Your task to perform on an android device: turn on sleep mode Image 0: 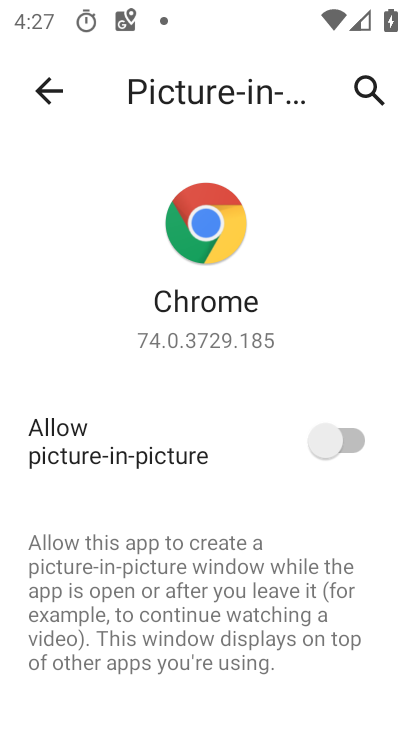
Step 0: press home button
Your task to perform on an android device: turn on sleep mode Image 1: 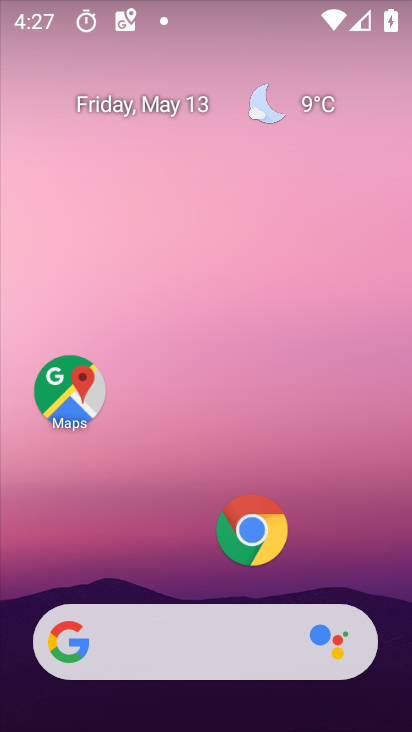
Step 1: drag from (194, 576) to (266, 32)
Your task to perform on an android device: turn on sleep mode Image 2: 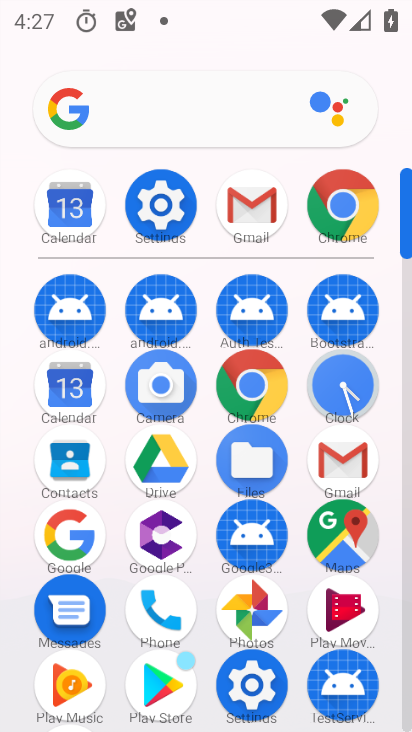
Step 2: click (259, 662)
Your task to perform on an android device: turn on sleep mode Image 3: 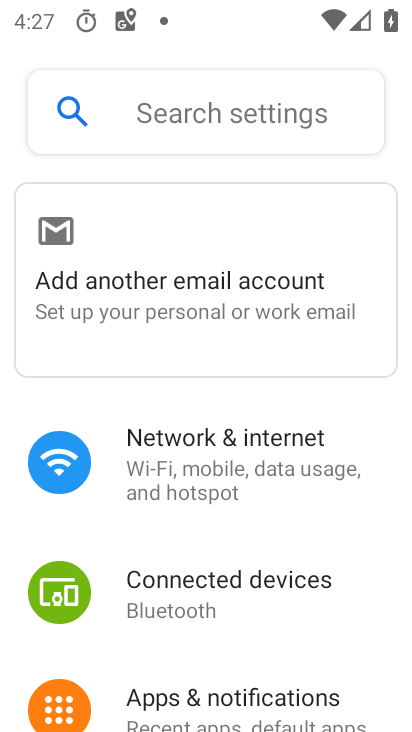
Step 3: drag from (201, 686) to (260, 192)
Your task to perform on an android device: turn on sleep mode Image 4: 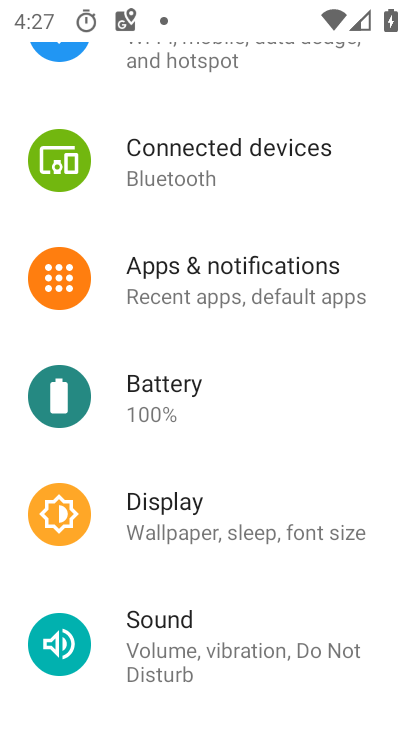
Step 4: drag from (222, 672) to (236, 544)
Your task to perform on an android device: turn on sleep mode Image 5: 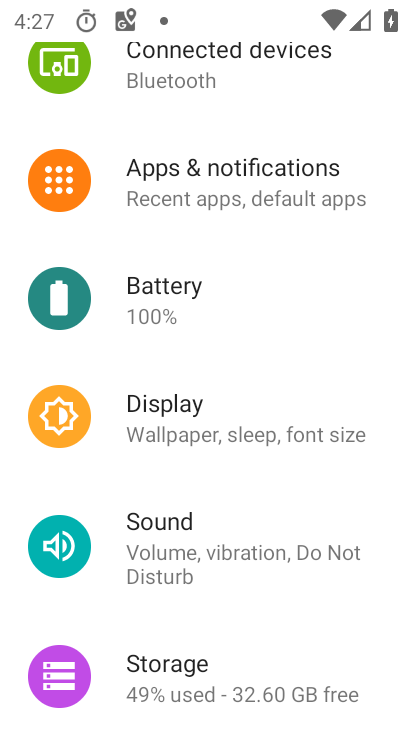
Step 5: drag from (236, 514) to (233, 475)
Your task to perform on an android device: turn on sleep mode Image 6: 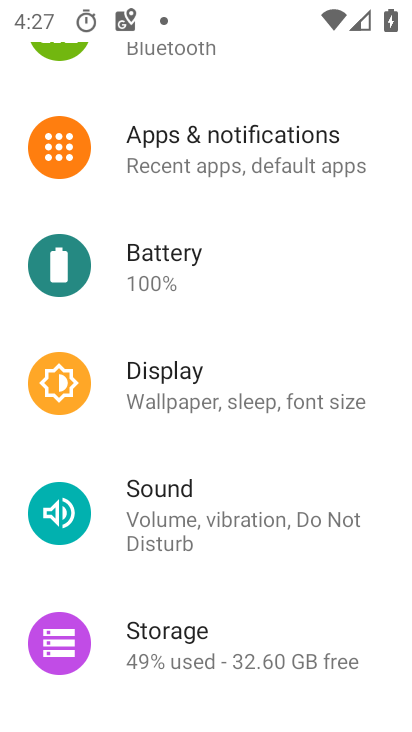
Step 6: click (214, 369)
Your task to perform on an android device: turn on sleep mode Image 7: 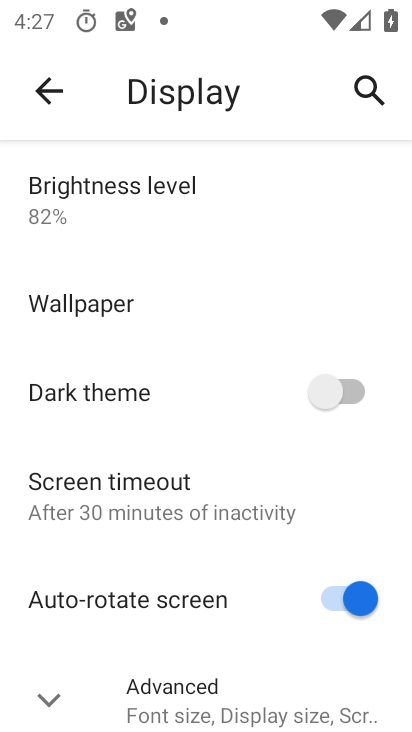
Step 7: click (45, 691)
Your task to perform on an android device: turn on sleep mode Image 8: 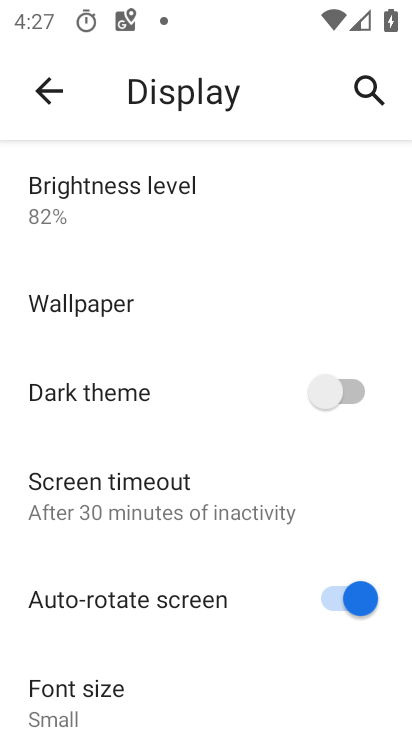
Step 8: task complete